Your task to perform on an android device: Go to Google Image 0: 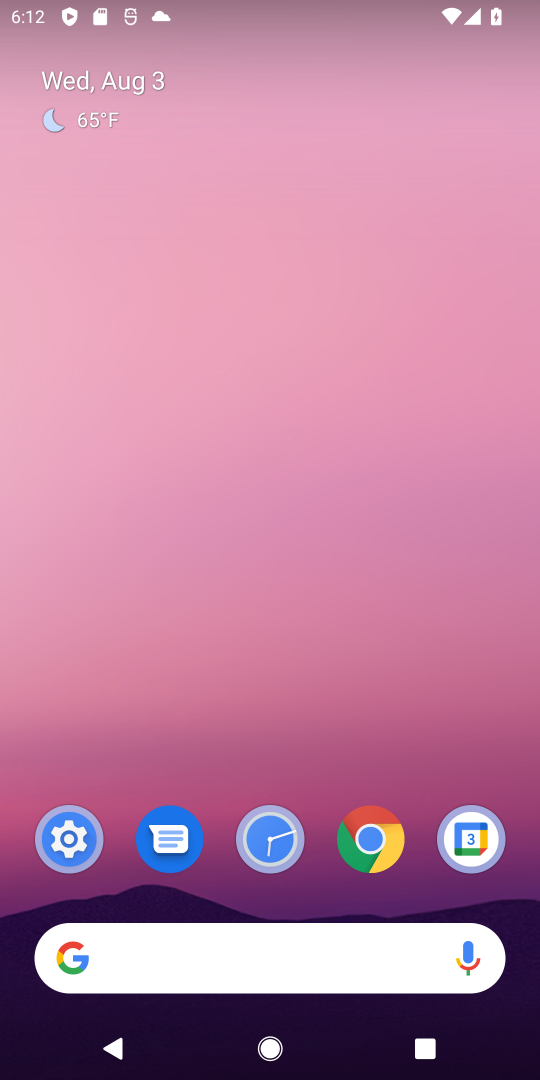
Step 0: drag from (276, 726) to (434, 58)
Your task to perform on an android device: Go to Google Image 1: 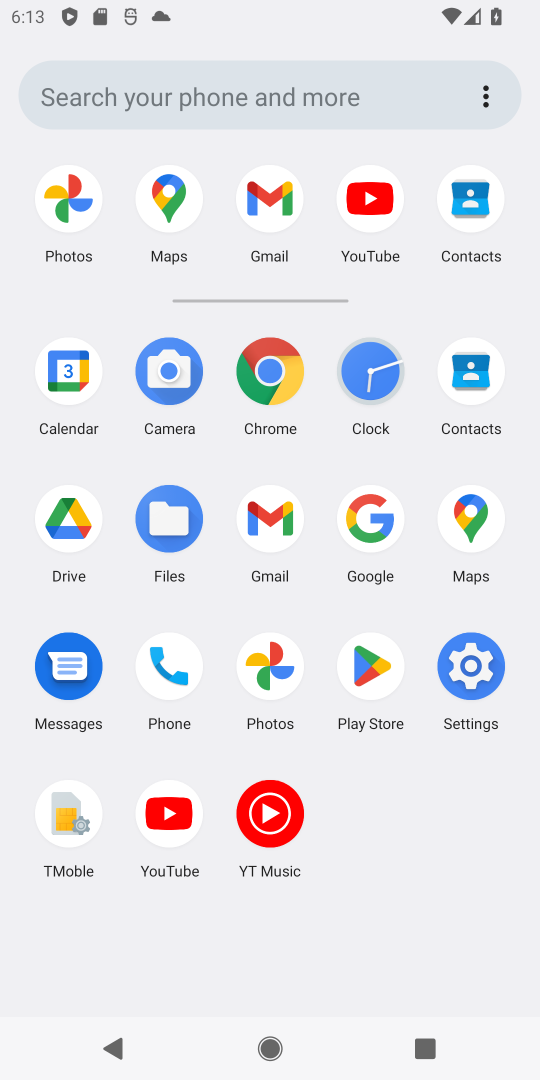
Step 1: click (375, 526)
Your task to perform on an android device: Go to Google Image 2: 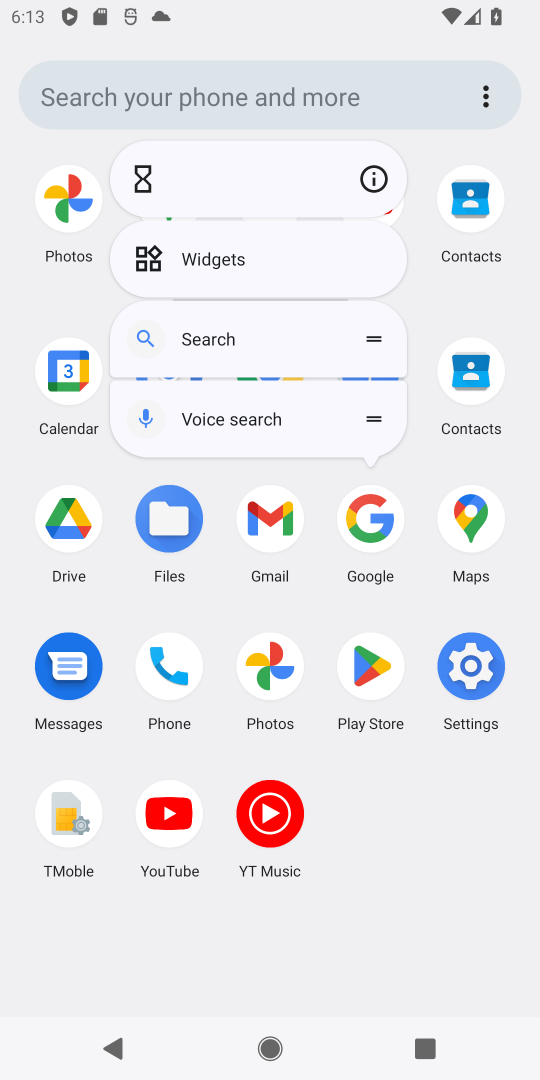
Step 2: click (380, 524)
Your task to perform on an android device: Go to Google Image 3: 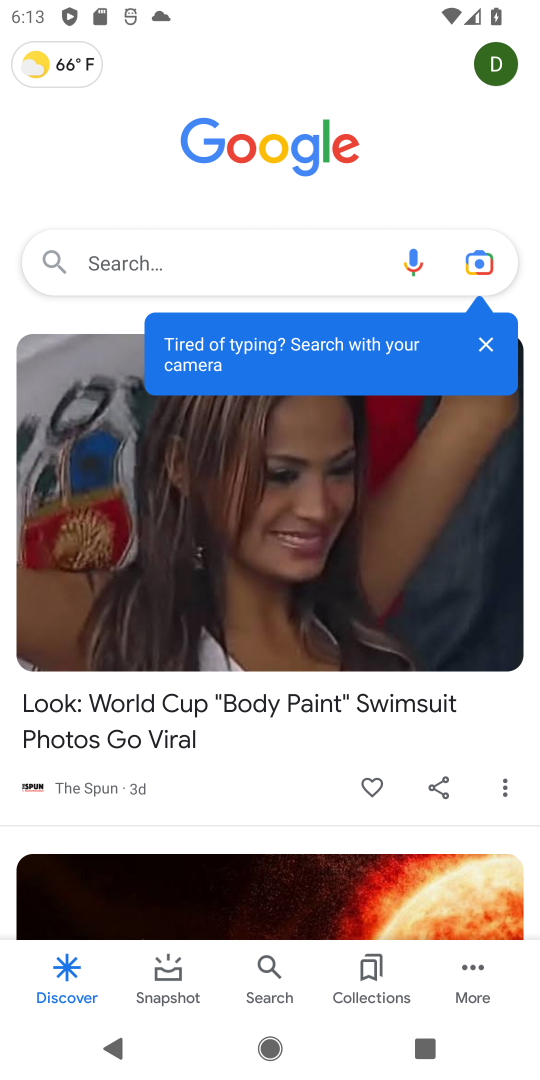
Step 3: task complete